Your task to perform on an android device: set the timer Image 0: 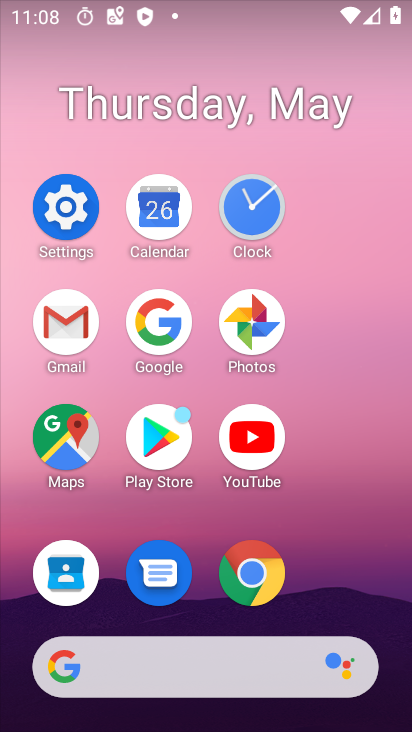
Step 0: click (236, 223)
Your task to perform on an android device: set the timer Image 1: 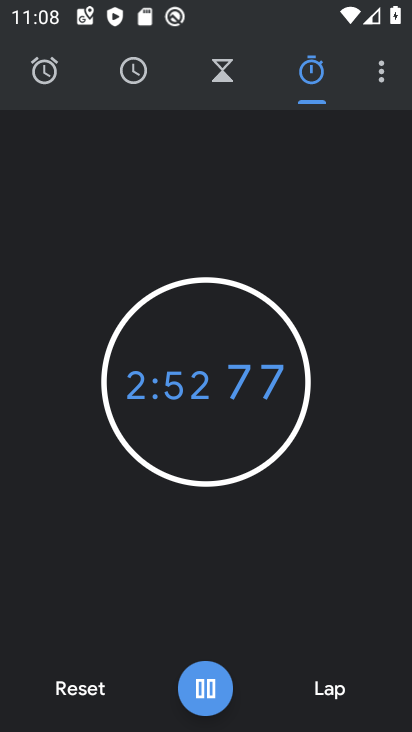
Step 1: click (218, 90)
Your task to perform on an android device: set the timer Image 2: 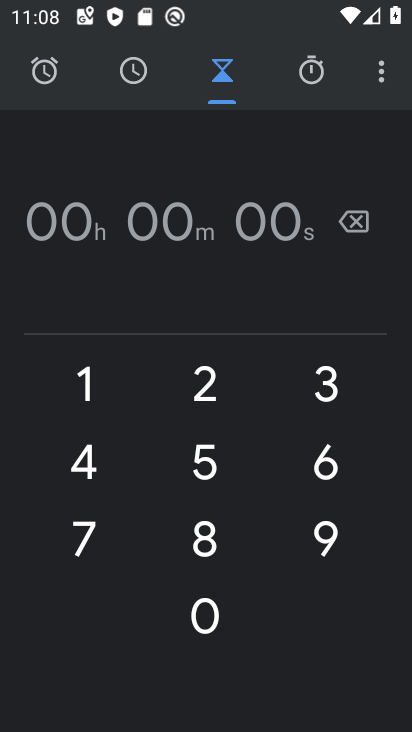
Step 2: click (207, 369)
Your task to perform on an android device: set the timer Image 3: 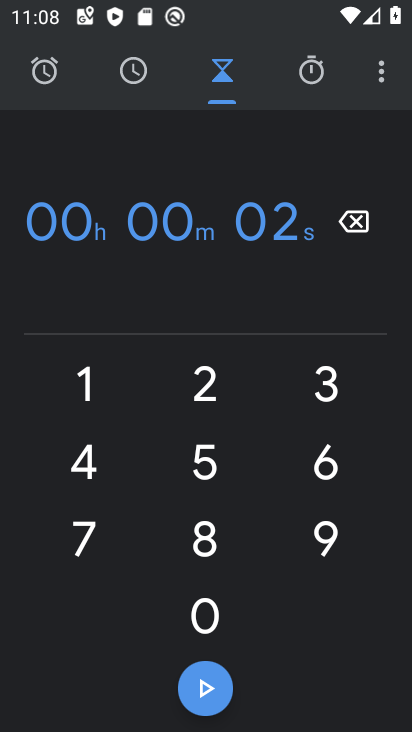
Step 3: click (207, 369)
Your task to perform on an android device: set the timer Image 4: 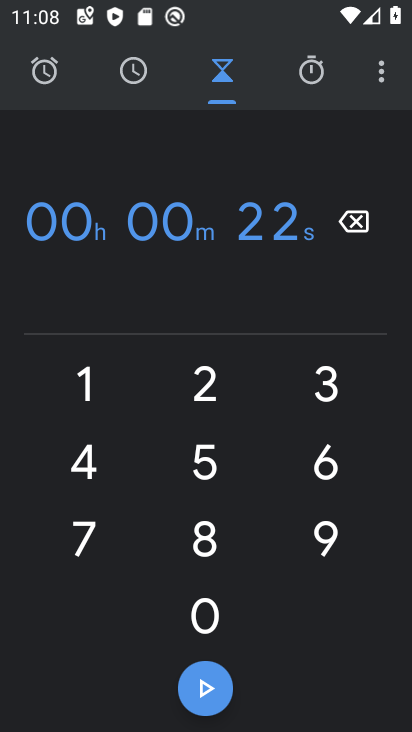
Step 4: click (204, 685)
Your task to perform on an android device: set the timer Image 5: 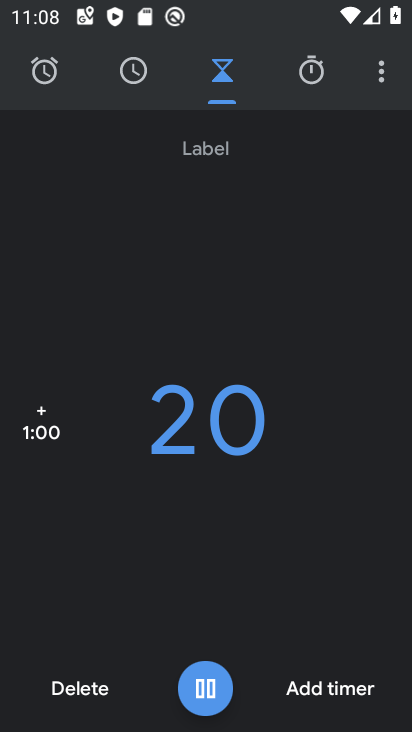
Step 5: task complete